Your task to perform on an android device: star an email in the gmail app Image 0: 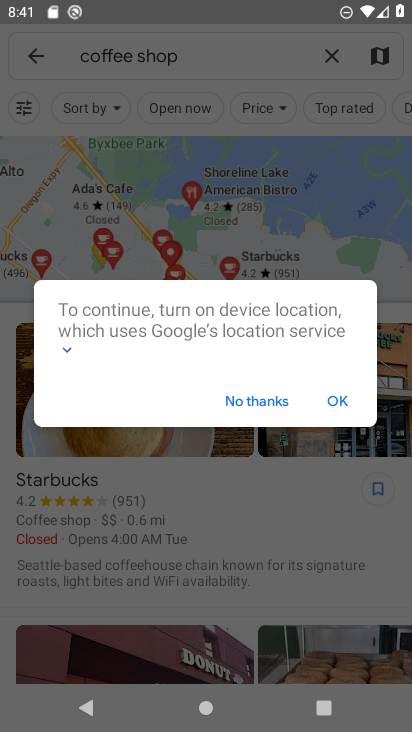
Step 0: press home button
Your task to perform on an android device: star an email in the gmail app Image 1: 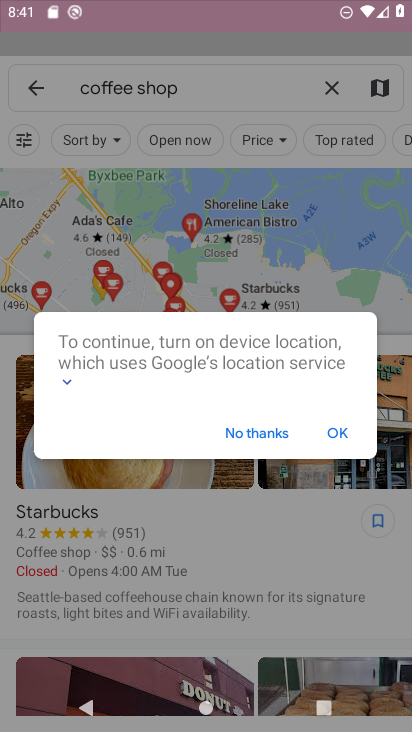
Step 1: drag from (220, 620) to (124, 0)
Your task to perform on an android device: star an email in the gmail app Image 2: 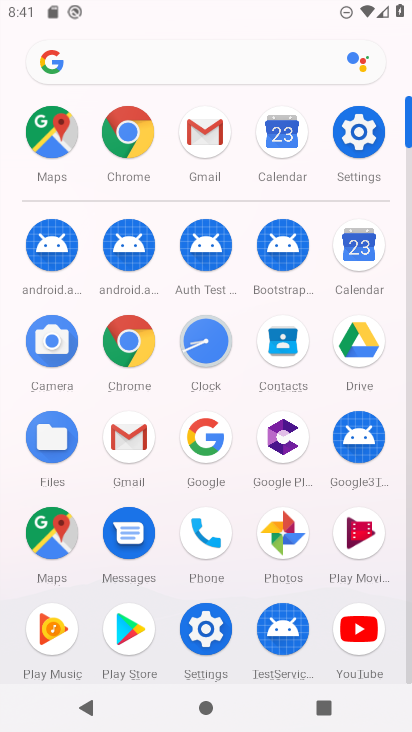
Step 2: click (126, 437)
Your task to perform on an android device: star an email in the gmail app Image 3: 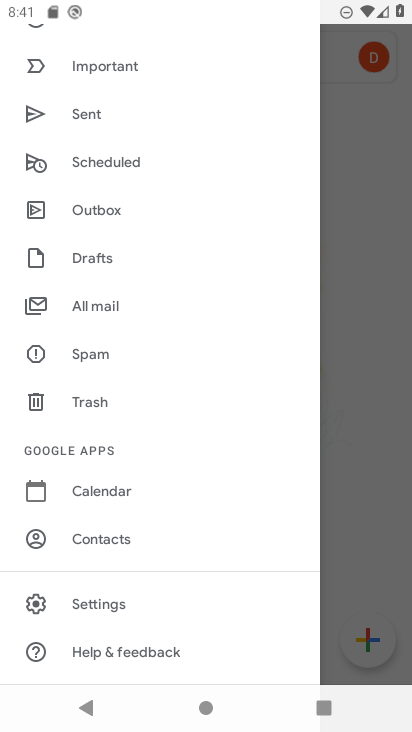
Step 3: drag from (162, 100) to (179, 594)
Your task to perform on an android device: star an email in the gmail app Image 4: 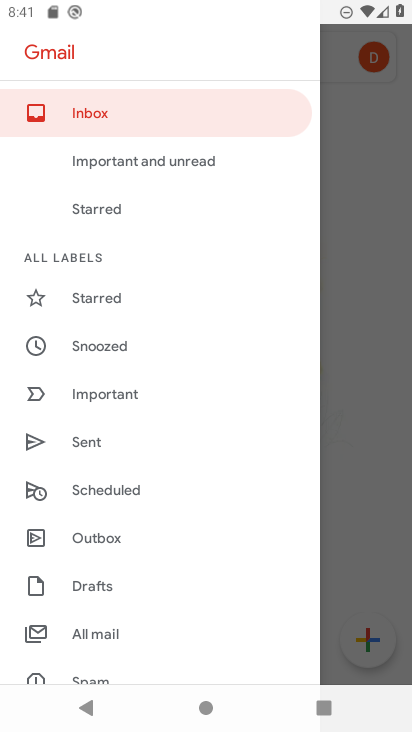
Step 4: click (114, 292)
Your task to perform on an android device: star an email in the gmail app Image 5: 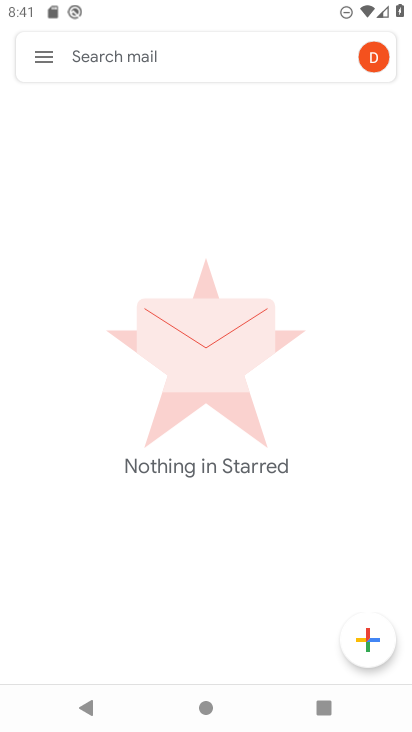
Step 5: task complete